Your task to perform on an android device: turn on javascript in the chrome app Image 0: 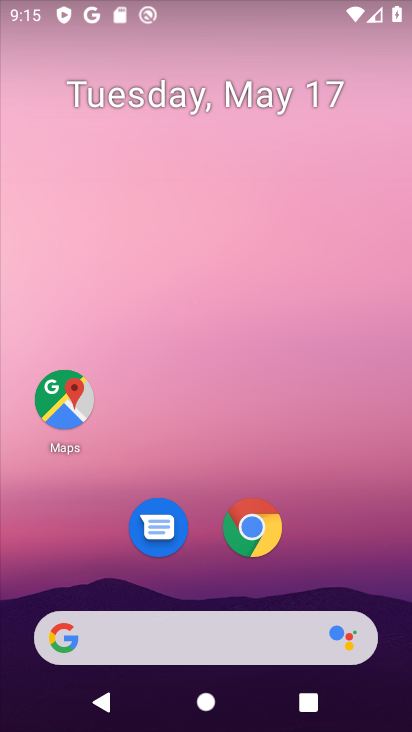
Step 0: click (261, 533)
Your task to perform on an android device: turn on javascript in the chrome app Image 1: 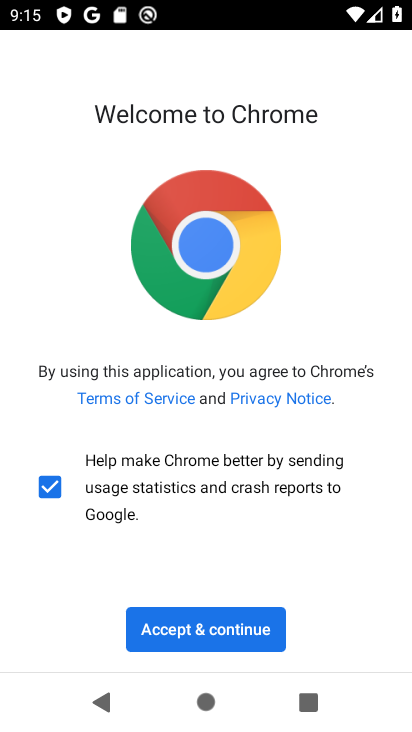
Step 1: click (214, 621)
Your task to perform on an android device: turn on javascript in the chrome app Image 2: 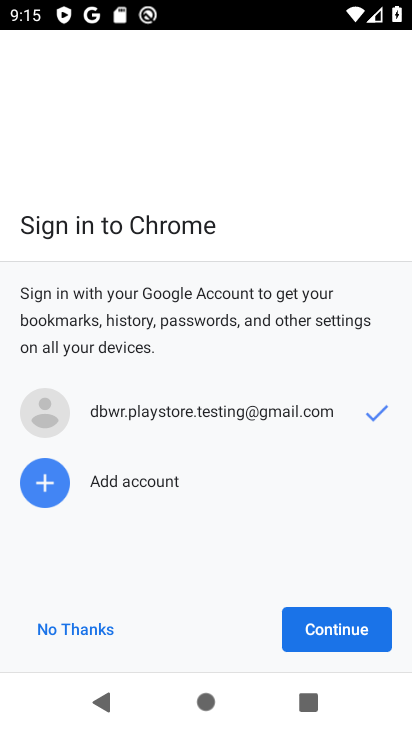
Step 2: click (328, 627)
Your task to perform on an android device: turn on javascript in the chrome app Image 3: 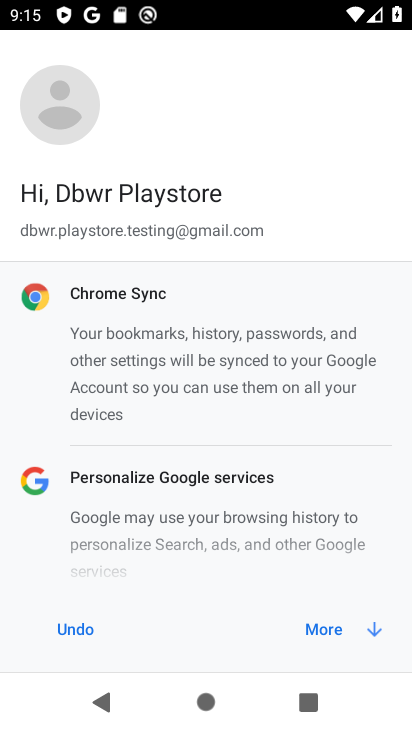
Step 3: click (328, 627)
Your task to perform on an android device: turn on javascript in the chrome app Image 4: 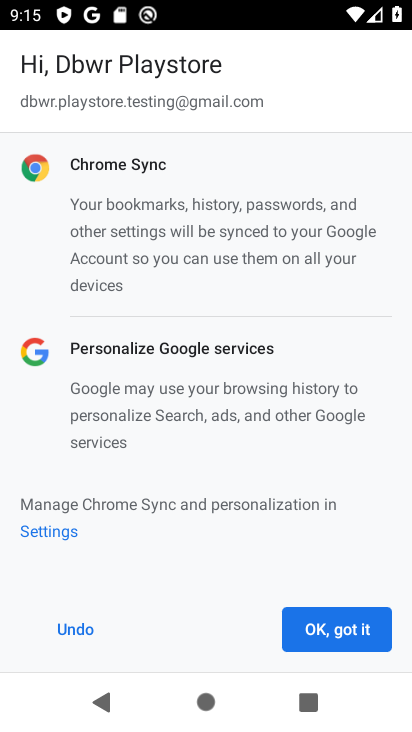
Step 4: click (328, 627)
Your task to perform on an android device: turn on javascript in the chrome app Image 5: 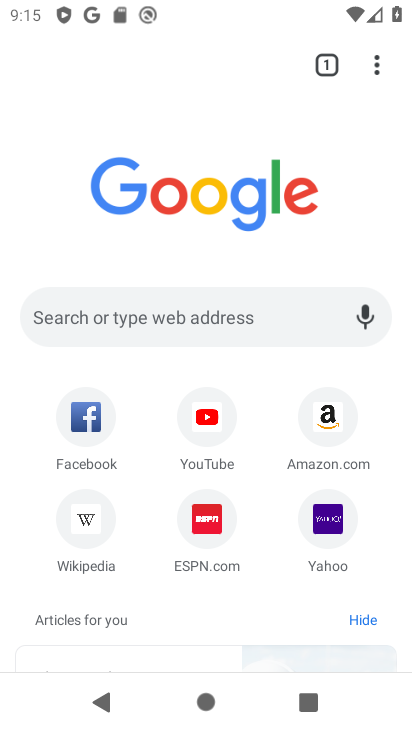
Step 5: click (391, 65)
Your task to perform on an android device: turn on javascript in the chrome app Image 6: 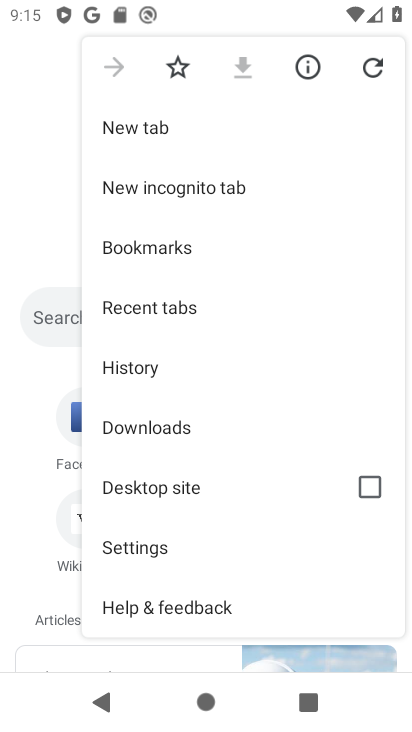
Step 6: click (172, 559)
Your task to perform on an android device: turn on javascript in the chrome app Image 7: 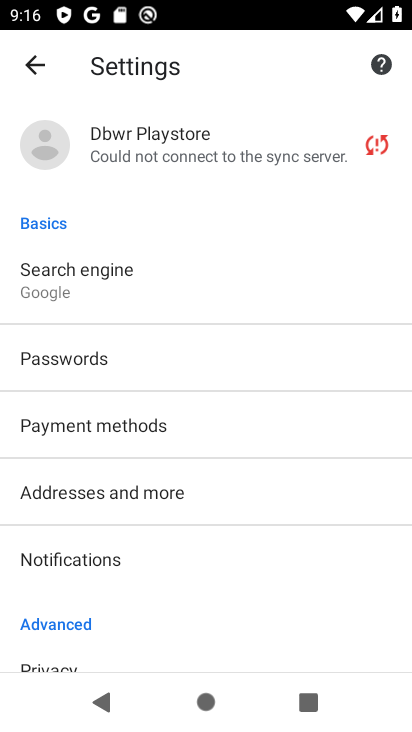
Step 7: drag from (144, 616) to (203, 211)
Your task to perform on an android device: turn on javascript in the chrome app Image 8: 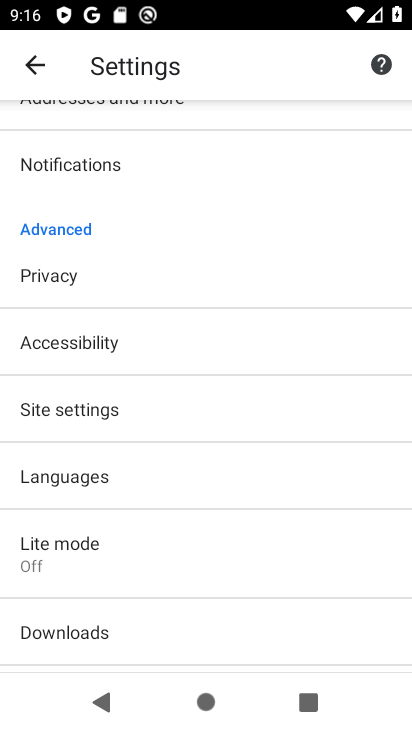
Step 8: click (97, 415)
Your task to perform on an android device: turn on javascript in the chrome app Image 9: 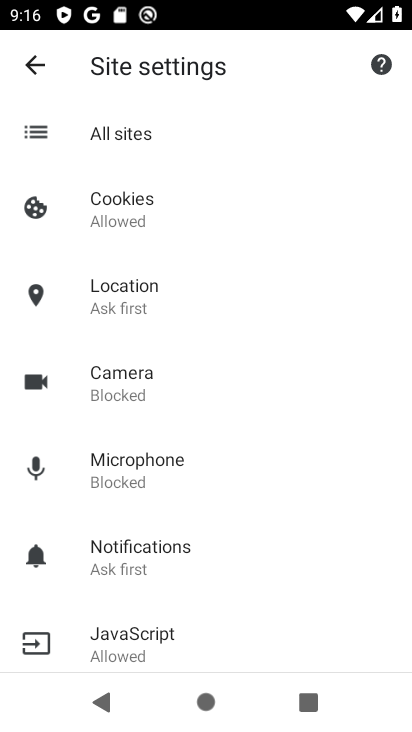
Step 9: click (158, 650)
Your task to perform on an android device: turn on javascript in the chrome app Image 10: 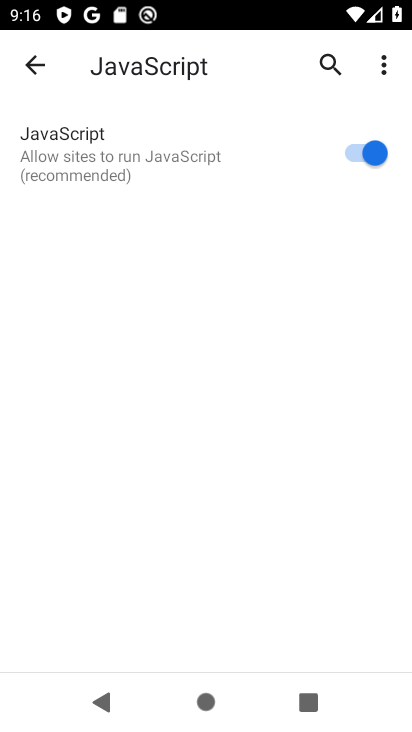
Step 10: task complete